Your task to perform on an android device: open app "NewsBreak: Local News & Alerts" Image 0: 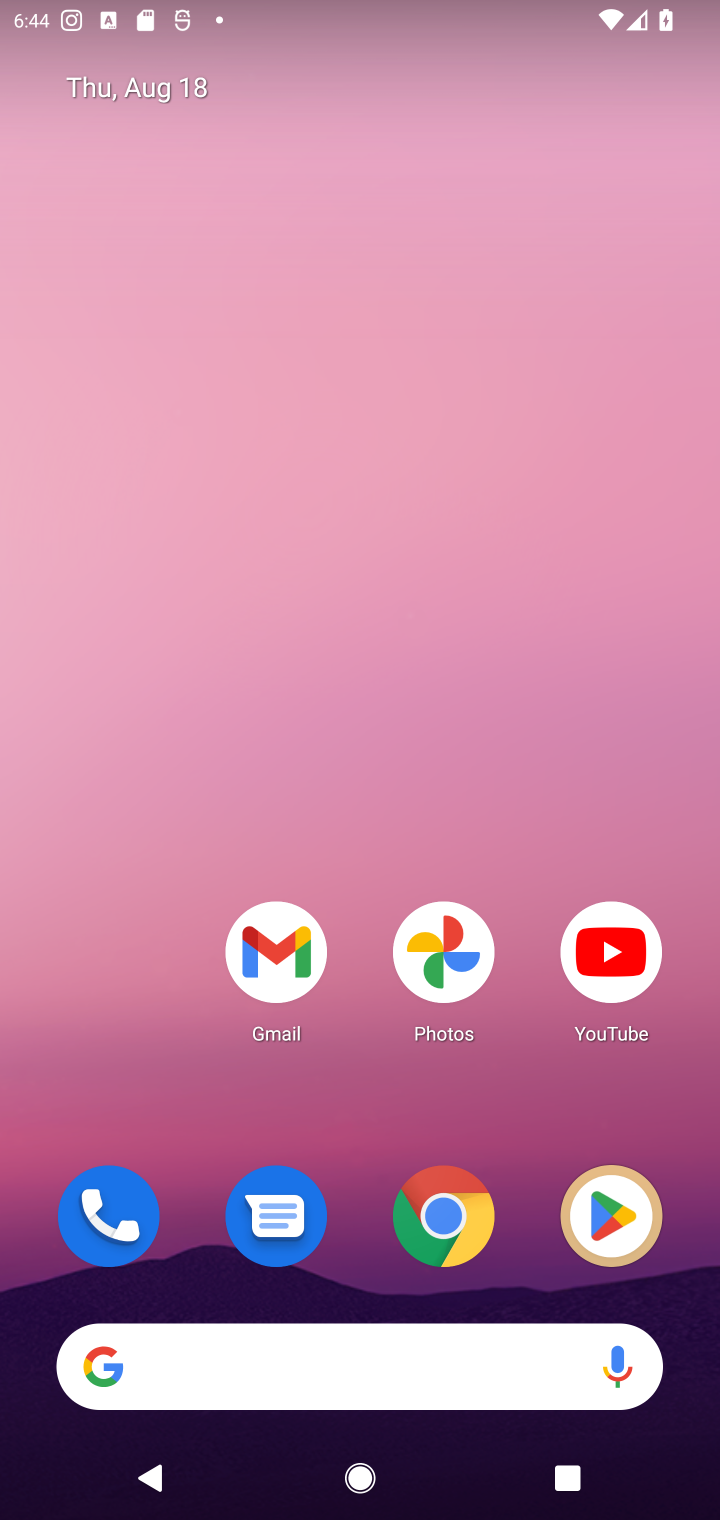
Step 0: click (619, 1238)
Your task to perform on an android device: open app "NewsBreak: Local News & Alerts" Image 1: 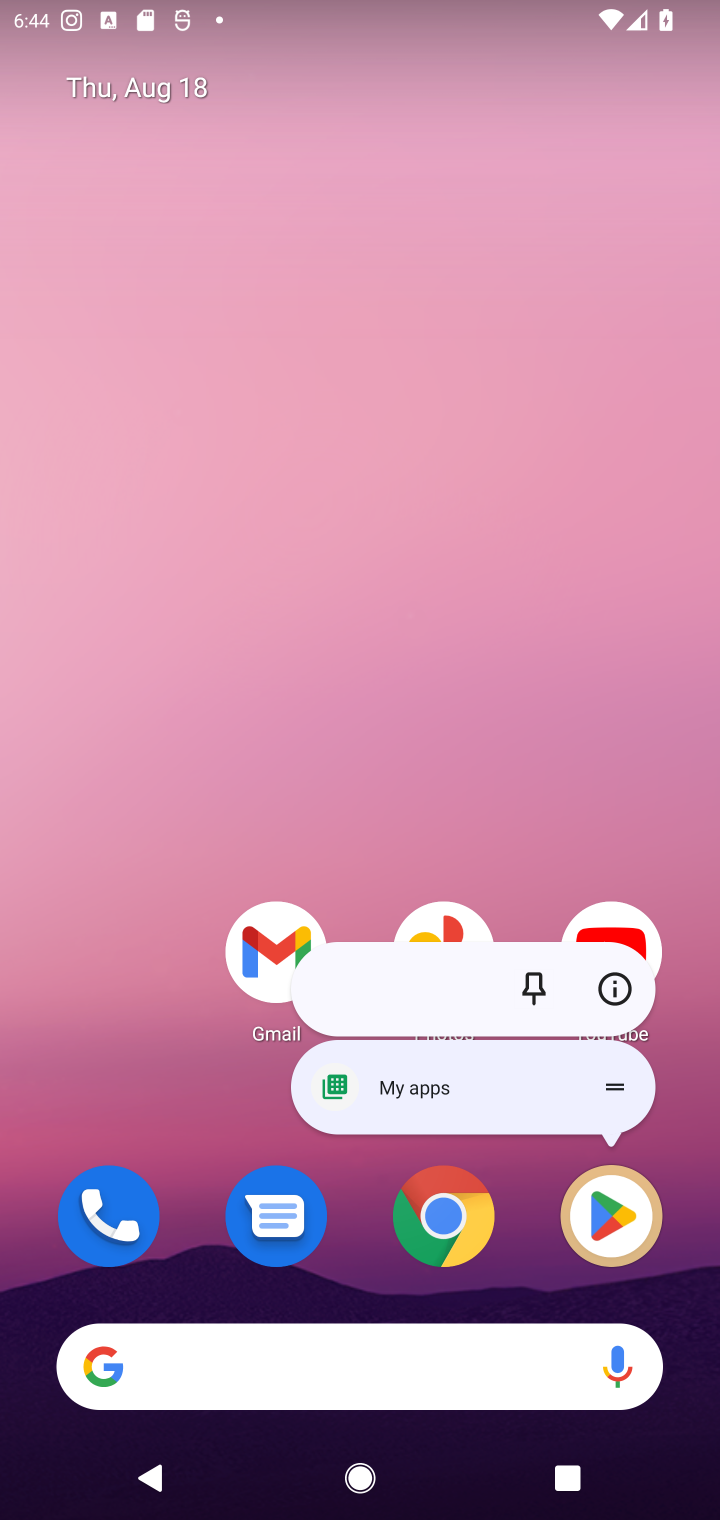
Step 1: click (624, 1199)
Your task to perform on an android device: open app "NewsBreak: Local News & Alerts" Image 2: 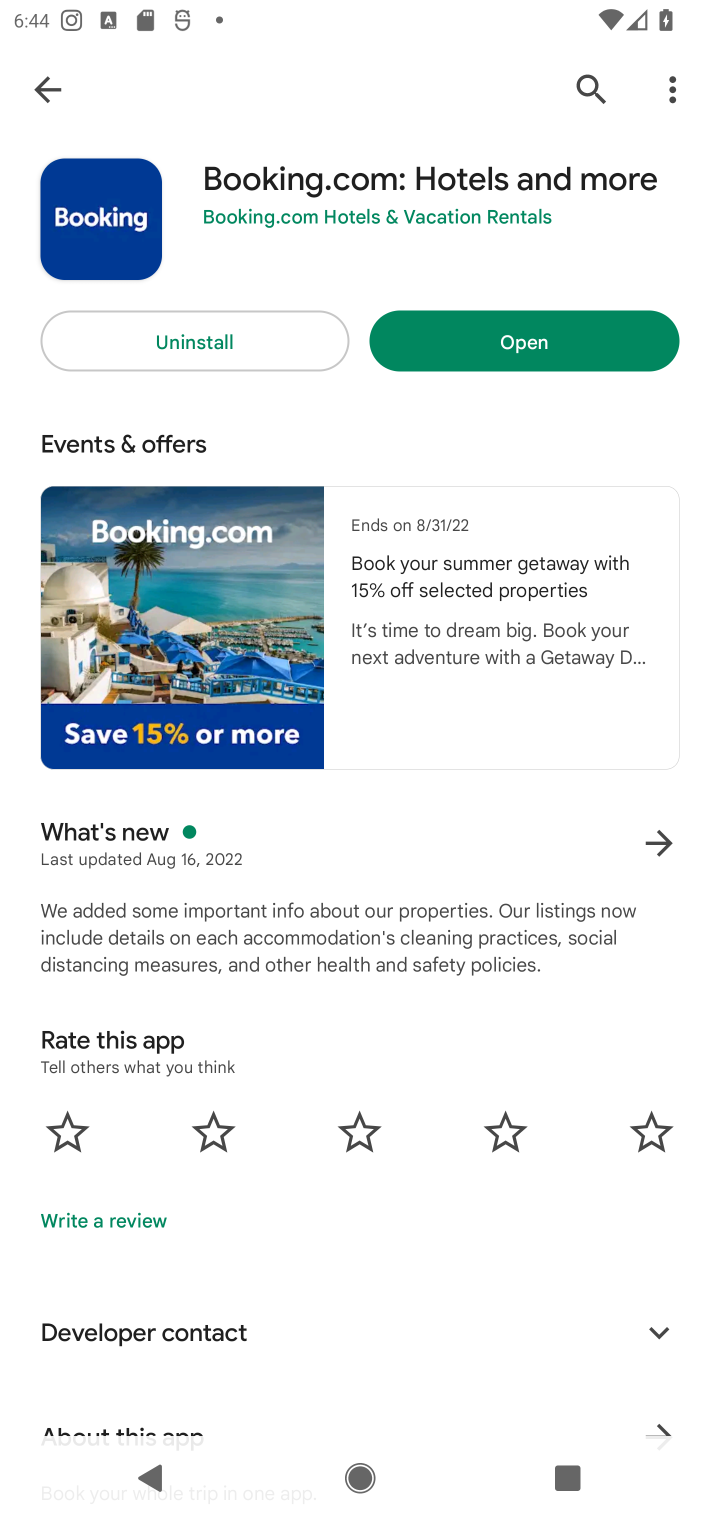
Step 2: click (573, 77)
Your task to perform on an android device: open app "NewsBreak: Local News & Alerts" Image 3: 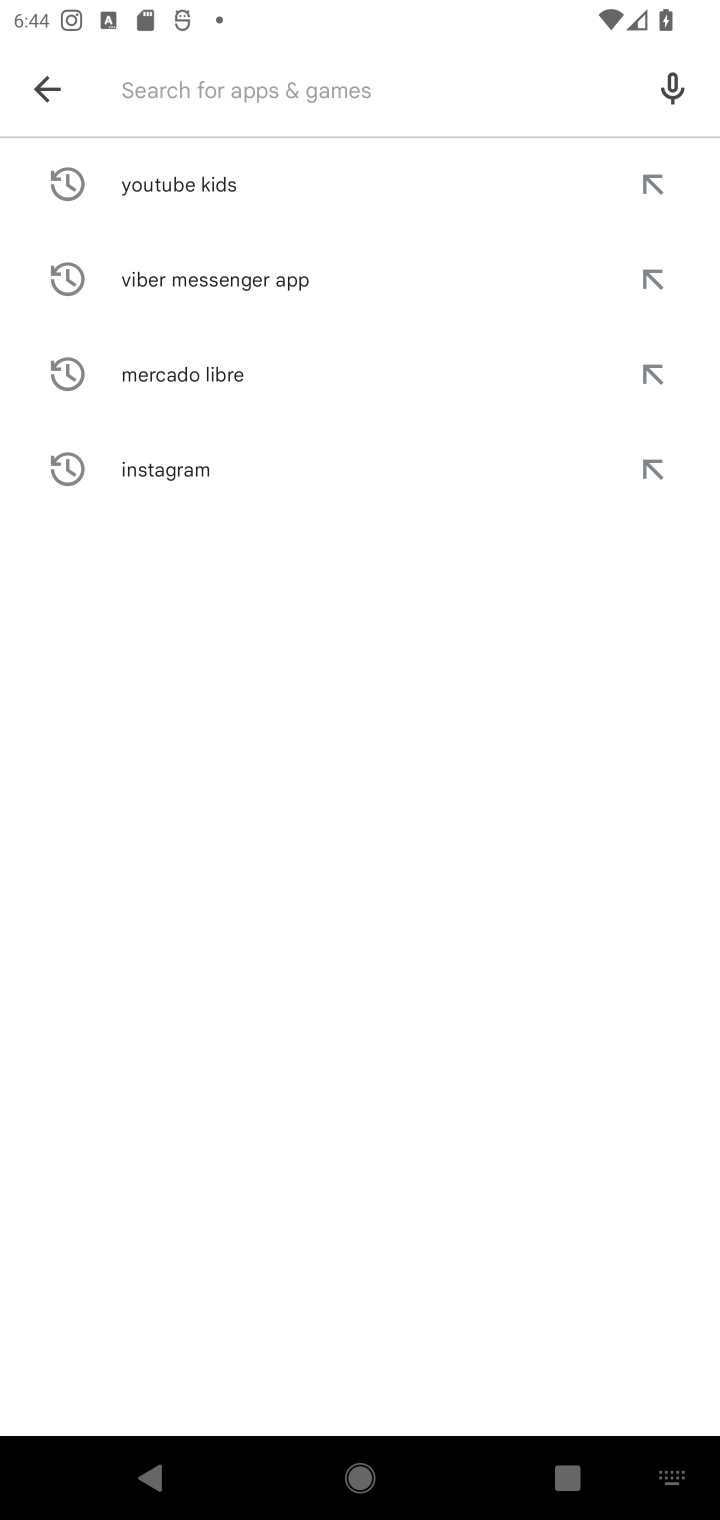
Step 3: type "NewsBreak: Local News & Alerts"
Your task to perform on an android device: open app "NewsBreak: Local News & Alerts" Image 4: 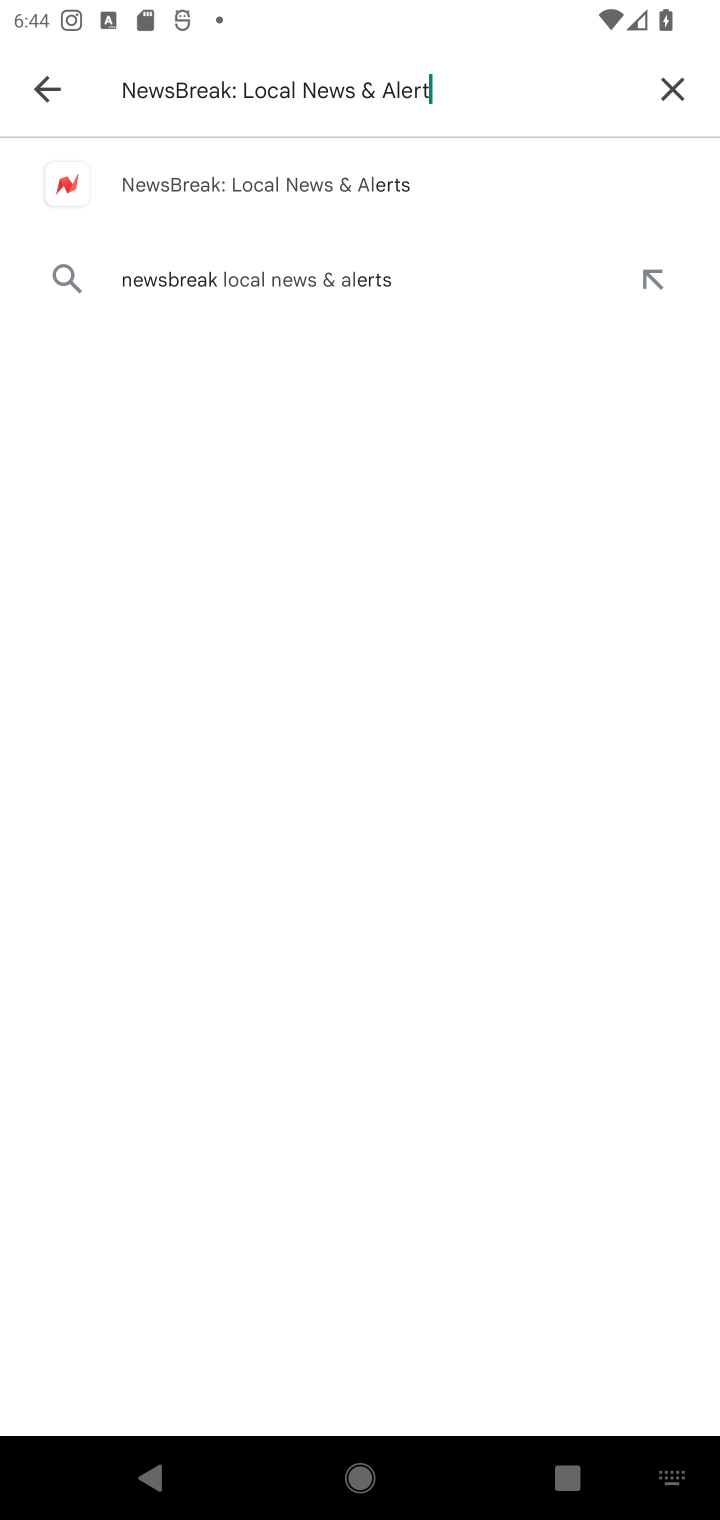
Step 4: type ""
Your task to perform on an android device: open app "NewsBreak: Local News & Alerts" Image 5: 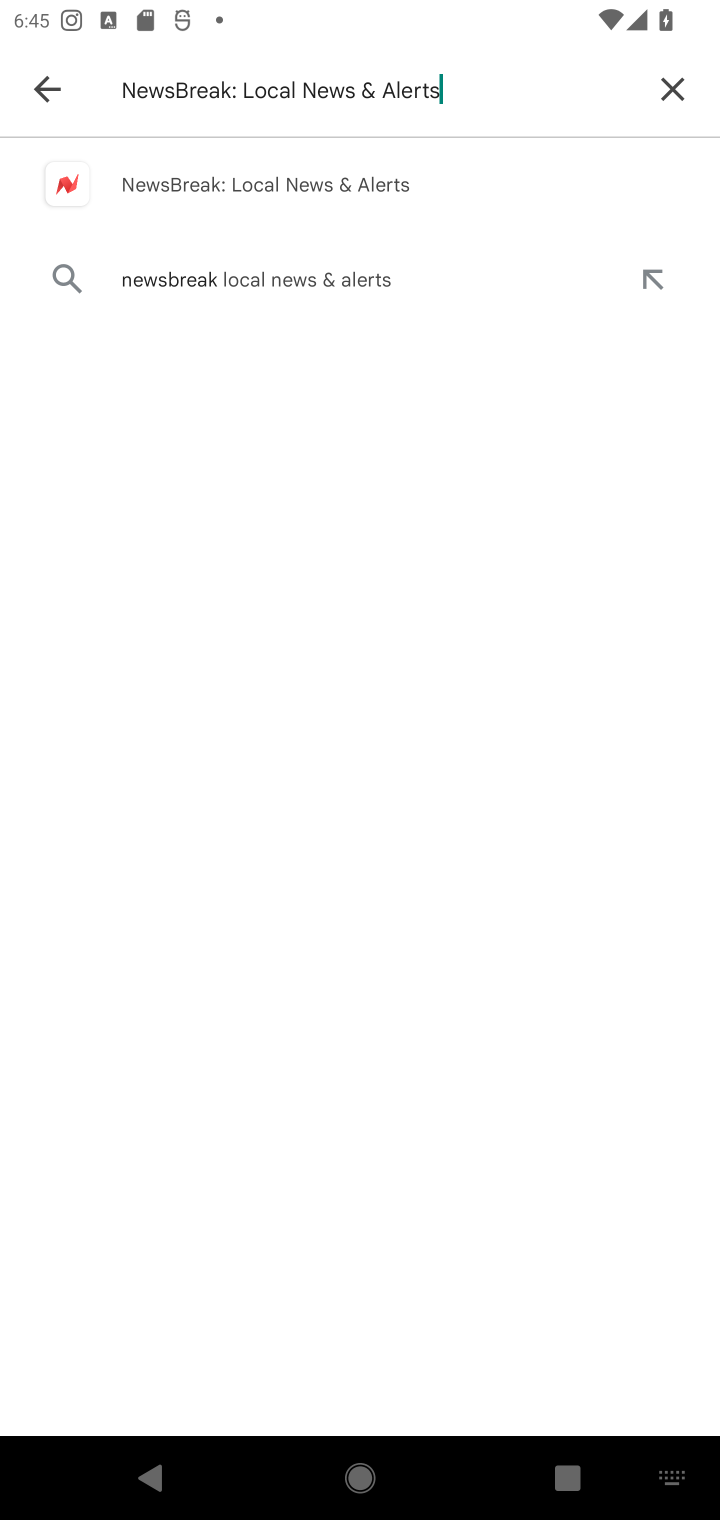
Step 5: press home button
Your task to perform on an android device: open app "NewsBreak: Local News & Alerts" Image 6: 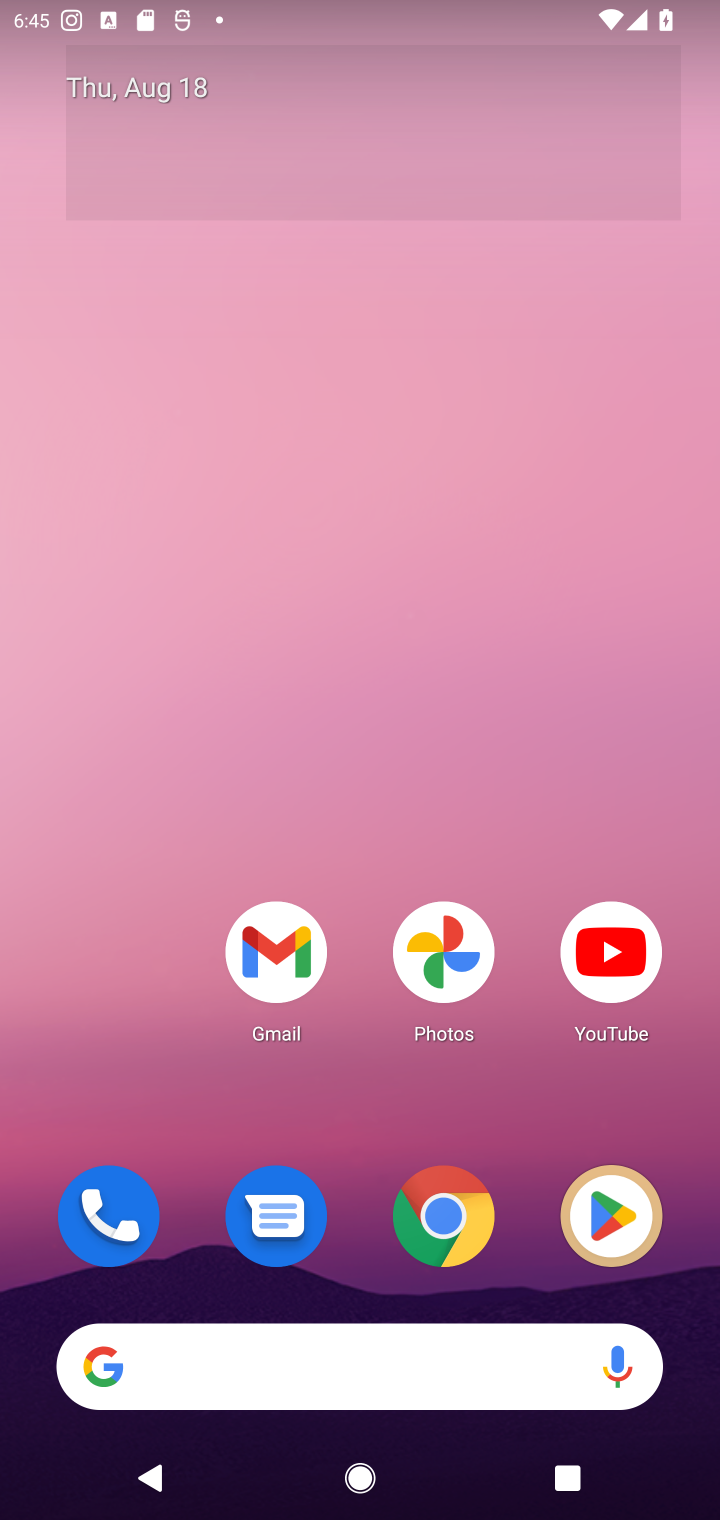
Step 6: click (576, 1185)
Your task to perform on an android device: open app "NewsBreak: Local News & Alerts" Image 7: 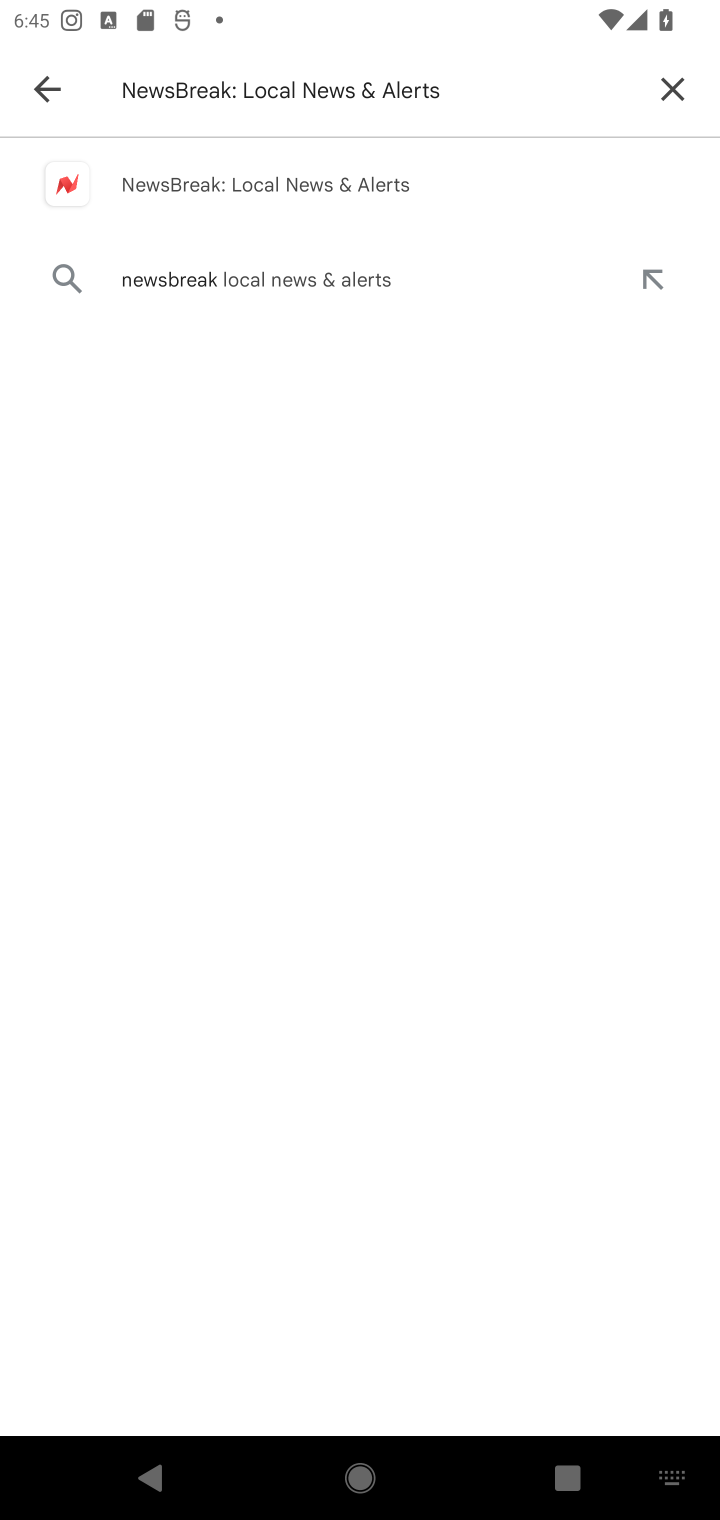
Step 7: click (676, 67)
Your task to perform on an android device: open app "NewsBreak: Local News & Alerts" Image 8: 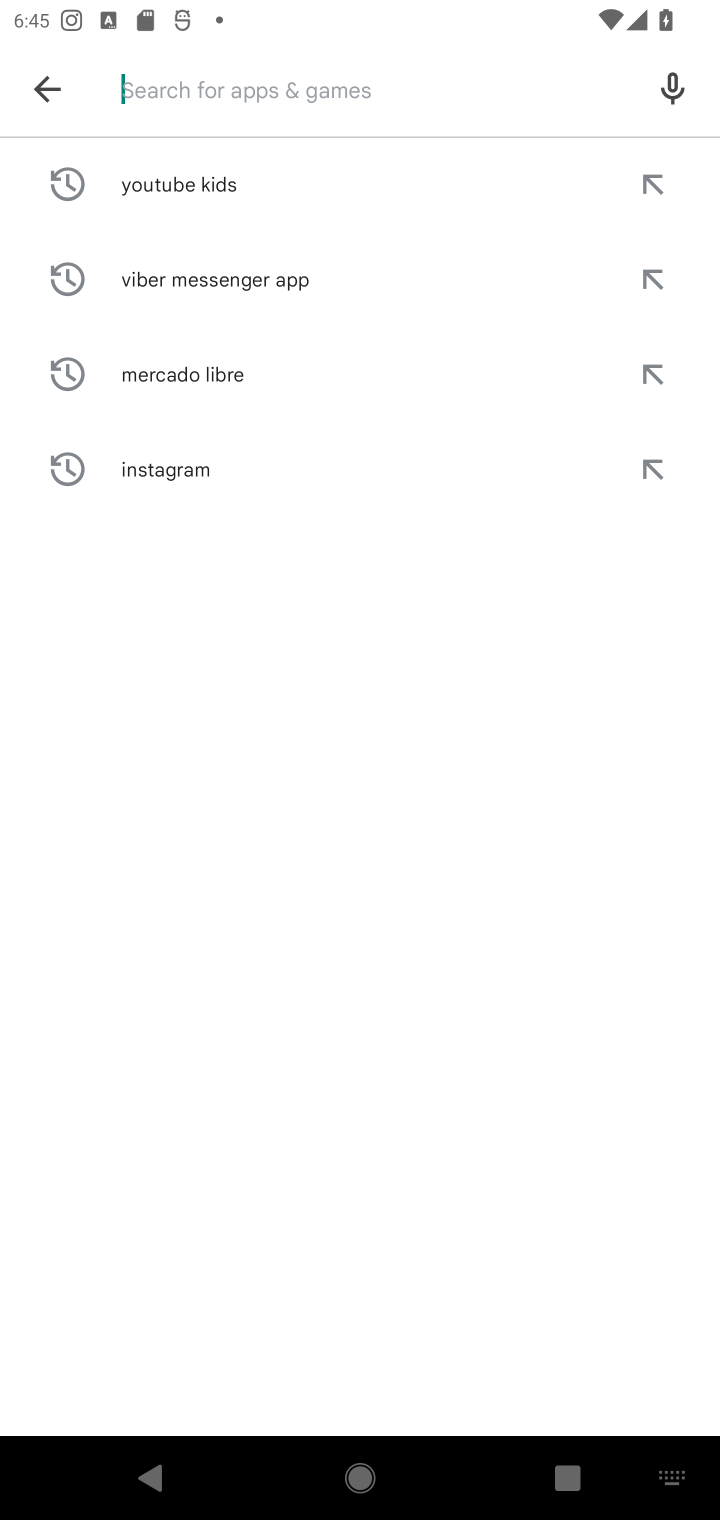
Step 8: type "NewsBreak: Local News & Alerts"
Your task to perform on an android device: open app "NewsBreak: Local News & Alerts" Image 9: 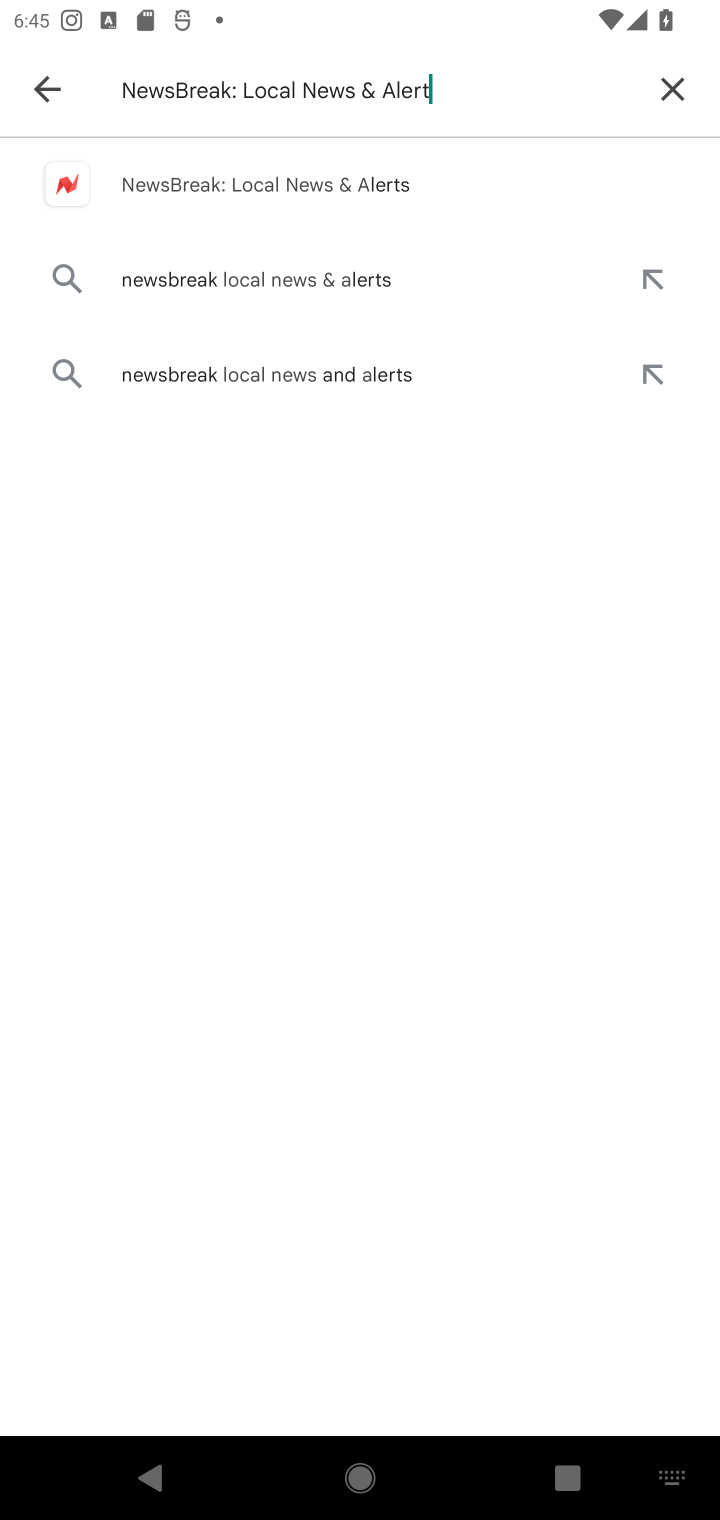
Step 9: type ""
Your task to perform on an android device: open app "NewsBreak: Local News & Alerts" Image 10: 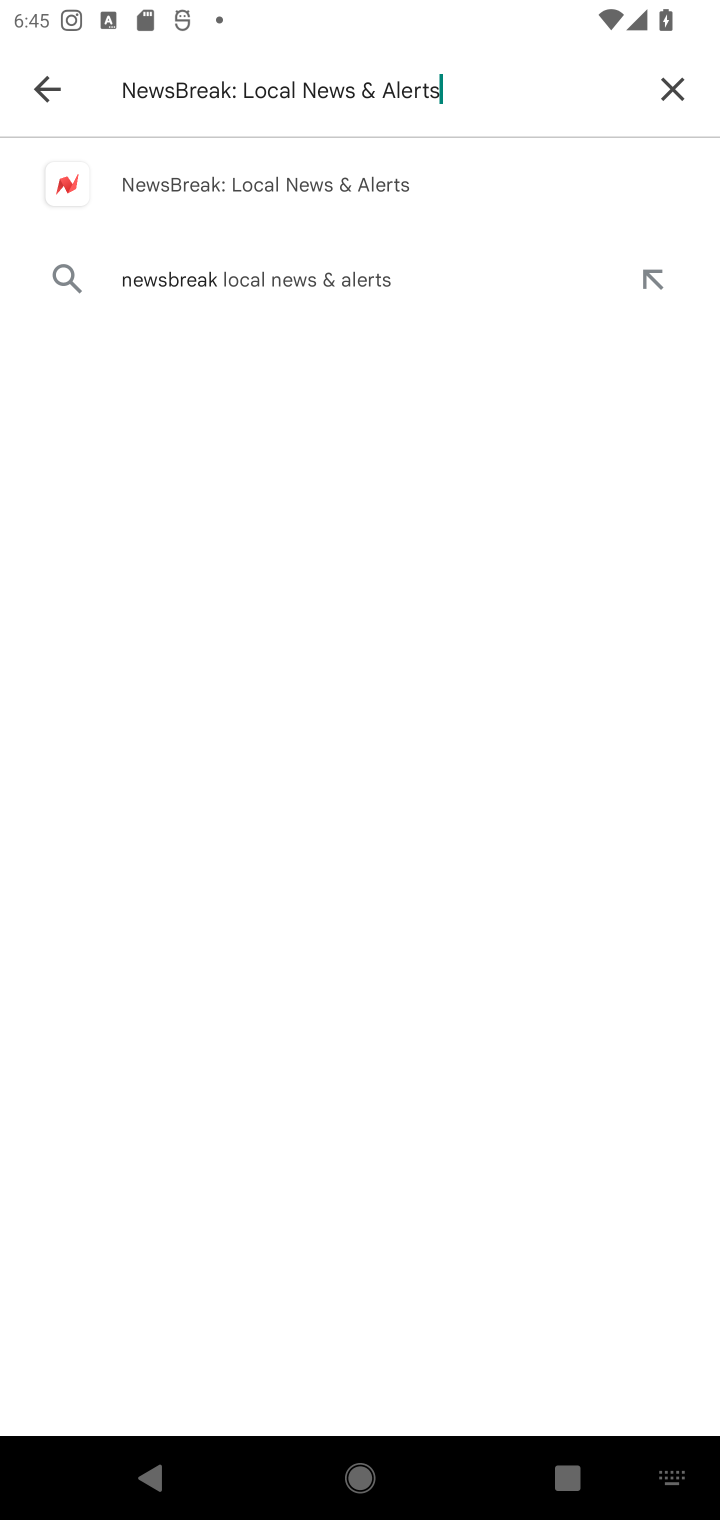
Step 10: click (321, 176)
Your task to perform on an android device: open app "NewsBreak: Local News & Alerts" Image 11: 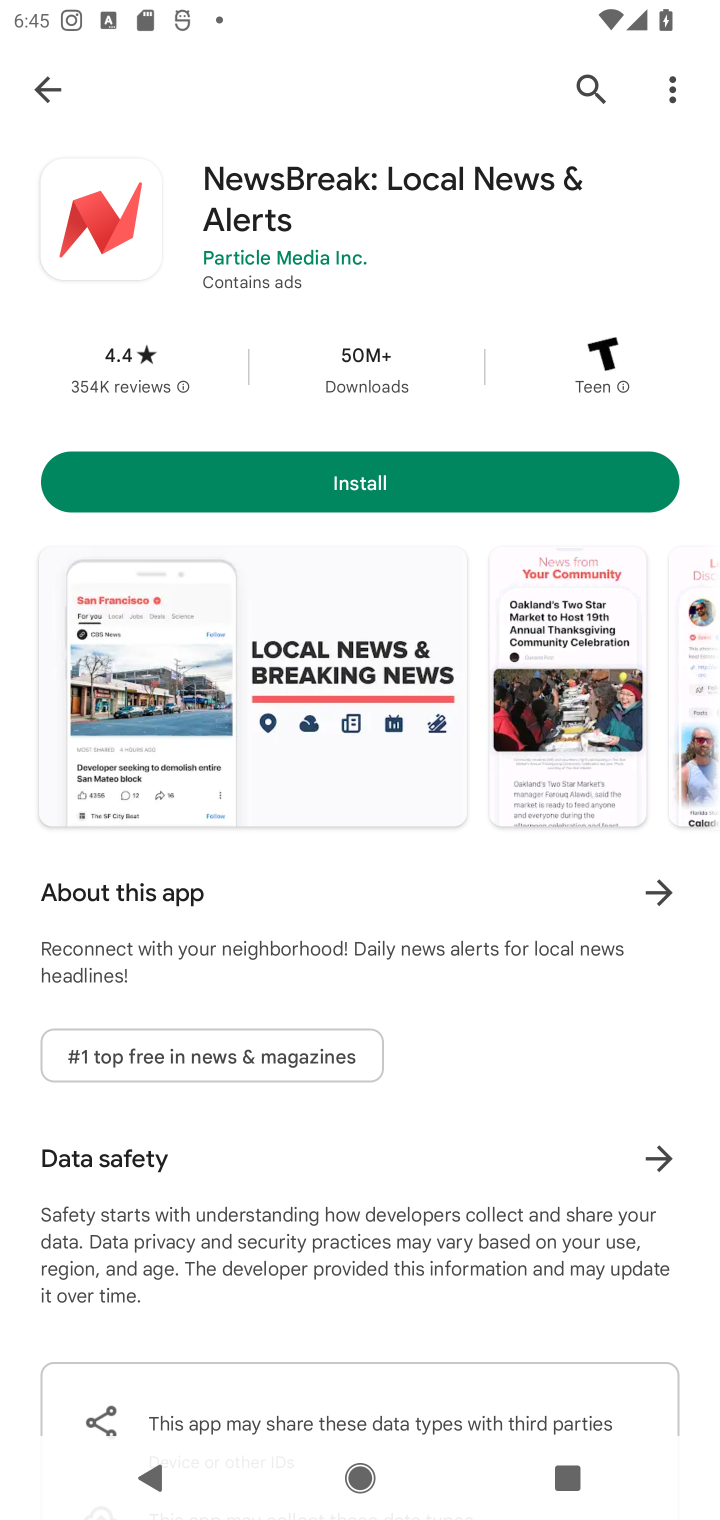
Step 11: task complete